Your task to perform on an android device: turn notification dots off Image 0: 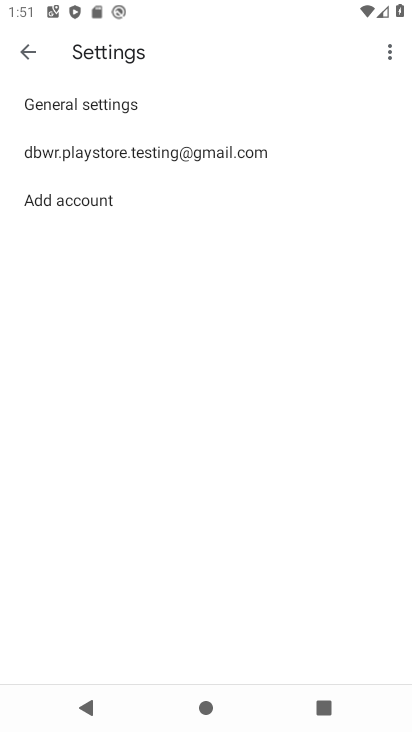
Step 0: press home button
Your task to perform on an android device: turn notification dots off Image 1: 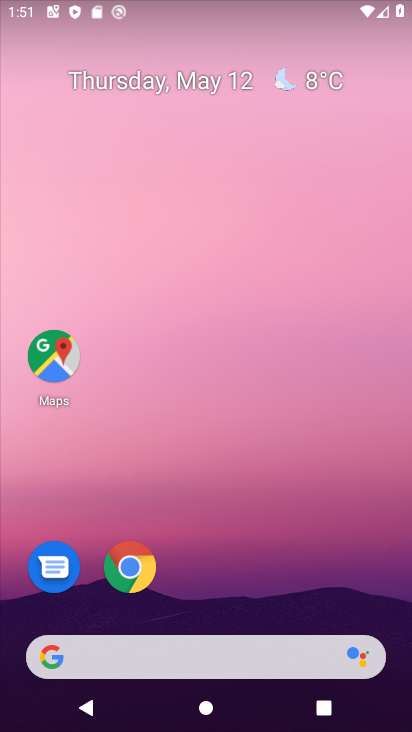
Step 1: drag from (217, 613) to (234, 19)
Your task to perform on an android device: turn notification dots off Image 2: 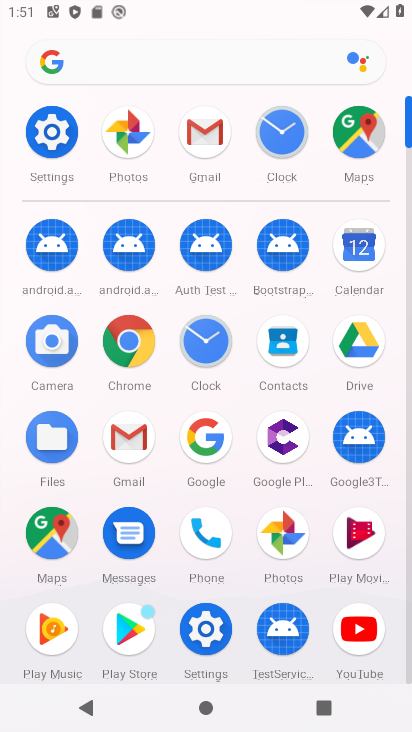
Step 2: click (49, 129)
Your task to perform on an android device: turn notification dots off Image 3: 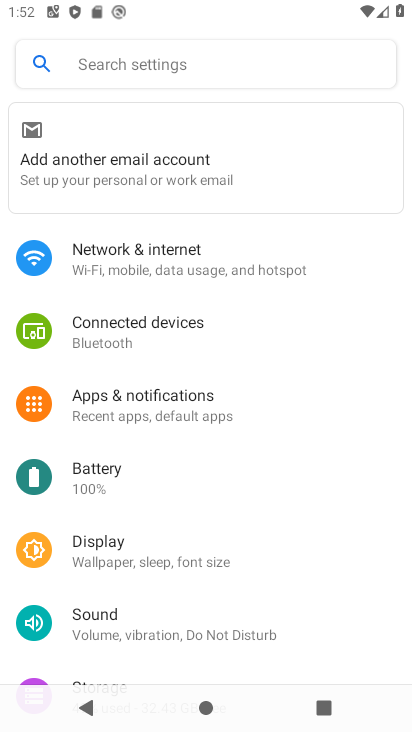
Step 3: drag from (172, 581) to (174, 535)
Your task to perform on an android device: turn notification dots off Image 4: 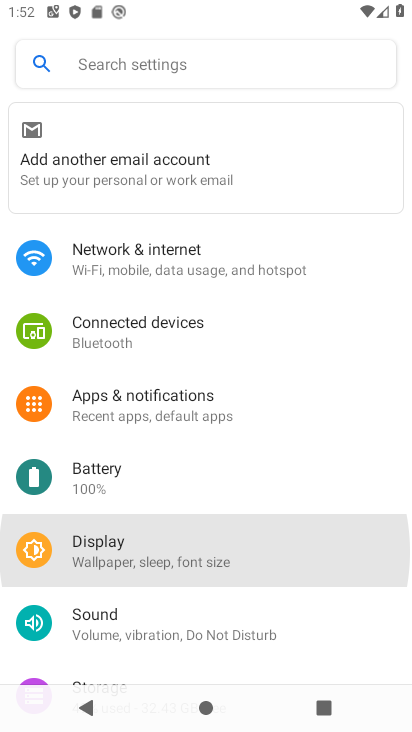
Step 4: drag from (169, 429) to (181, 208)
Your task to perform on an android device: turn notification dots off Image 5: 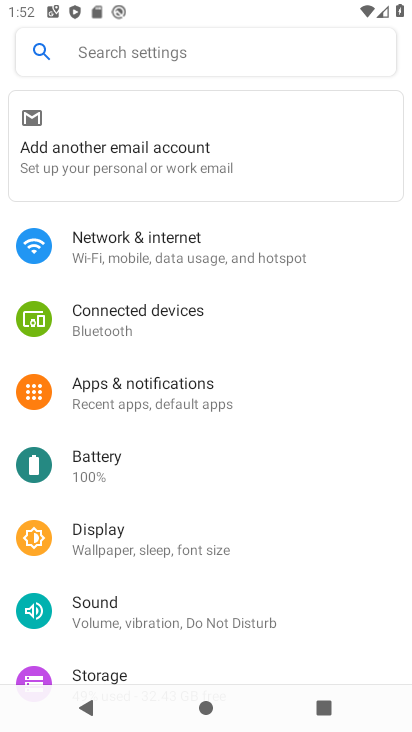
Step 5: click (189, 386)
Your task to perform on an android device: turn notification dots off Image 6: 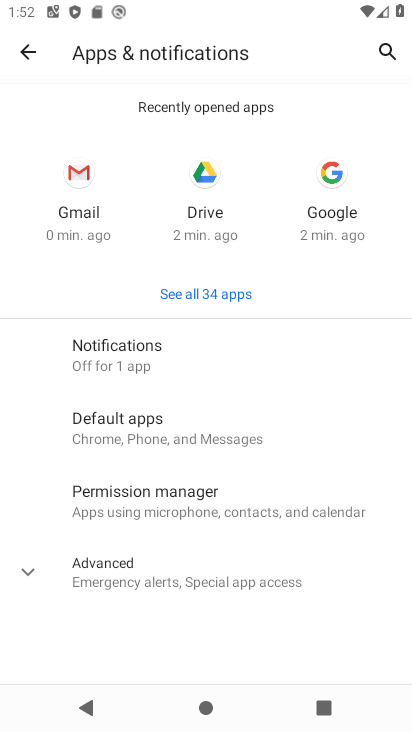
Step 6: click (167, 342)
Your task to perform on an android device: turn notification dots off Image 7: 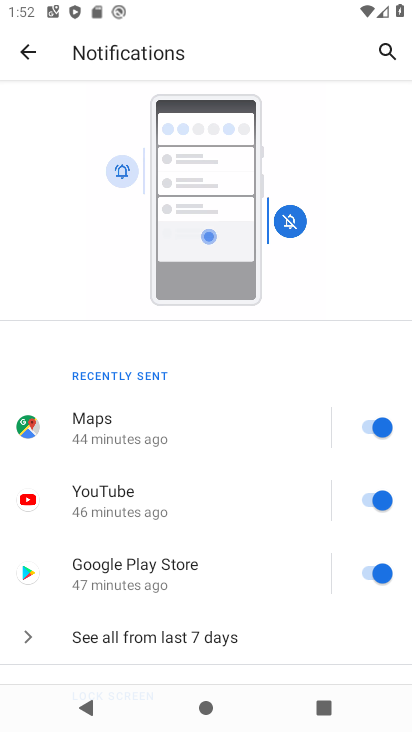
Step 7: drag from (202, 596) to (204, 533)
Your task to perform on an android device: turn notification dots off Image 8: 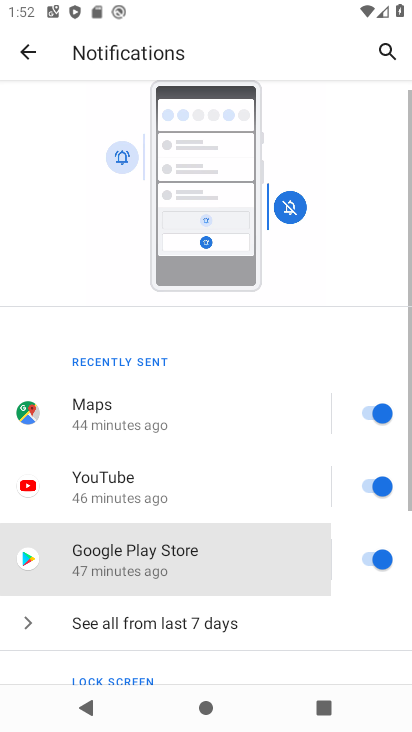
Step 8: drag from (229, 282) to (235, 201)
Your task to perform on an android device: turn notification dots off Image 9: 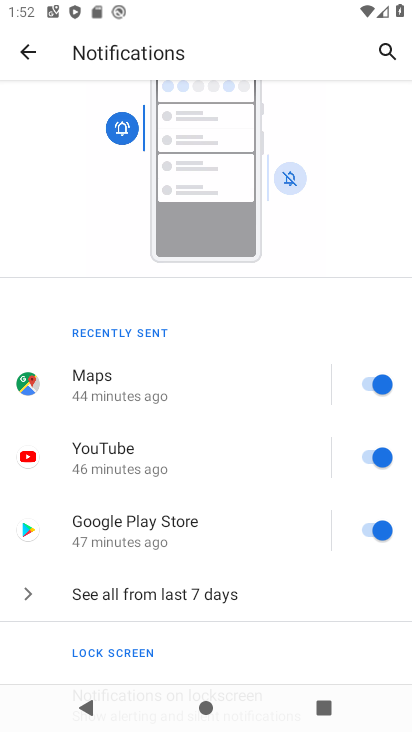
Step 9: drag from (186, 640) to (184, 526)
Your task to perform on an android device: turn notification dots off Image 10: 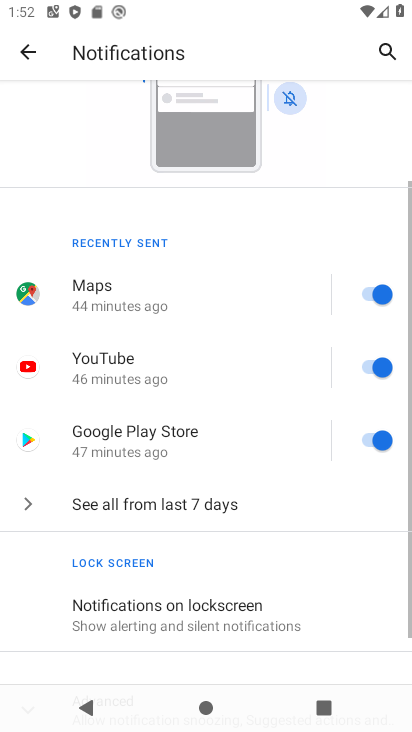
Step 10: click (204, 230)
Your task to perform on an android device: turn notification dots off Image 11: 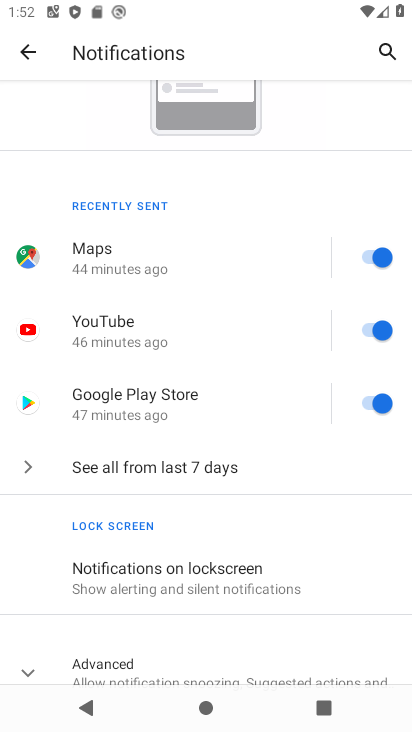
Step 11: click (67, 660)
Your task to perform on an android device: turn notification dots off Image 12: 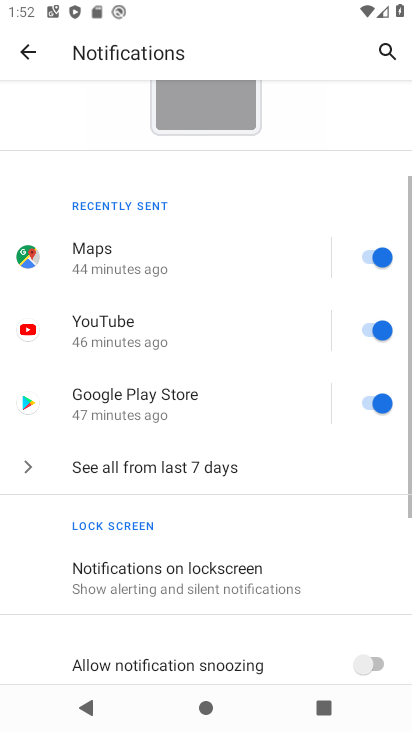
Step 12: drag from (171, 653) to (182, 86)
Your task to perform on an android device: turn notification dots off Image 13: 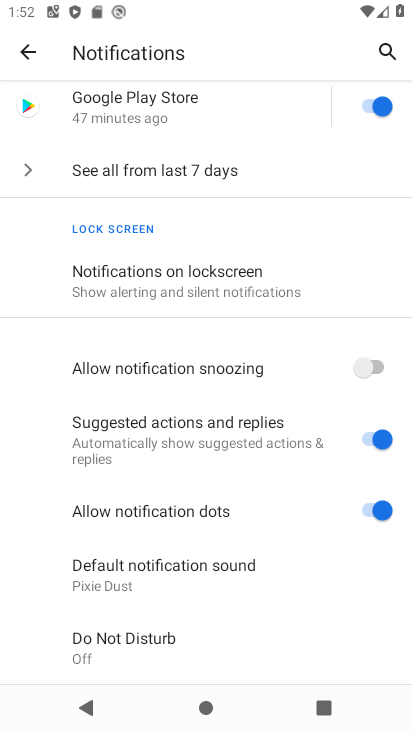
Step 13: click (365, 509)
Your task to perform on an android device: turn notification dots off Image 14: 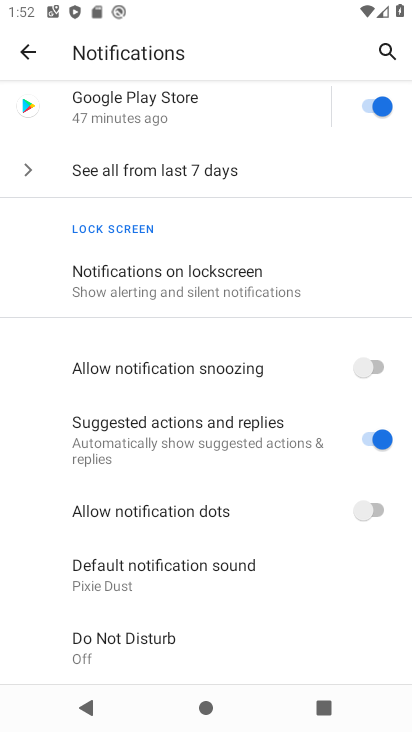
Step 14: task complete